Your task to perform on an android device: Do I have any events tomorrow? Image 0: 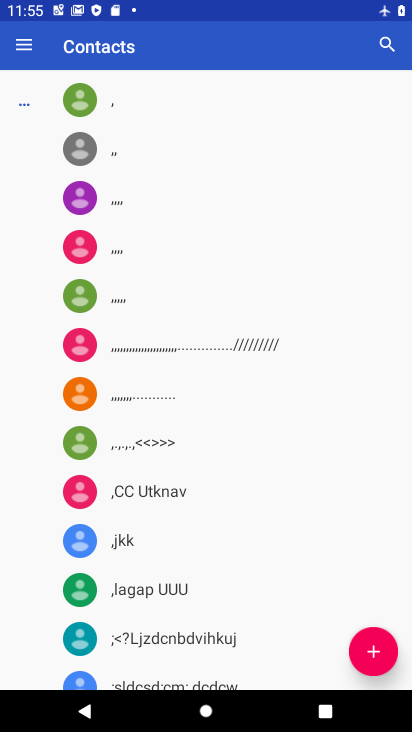
Step 0: press home button
Your task to perform on an android device: Do I have any events tomorrow? Image 1: 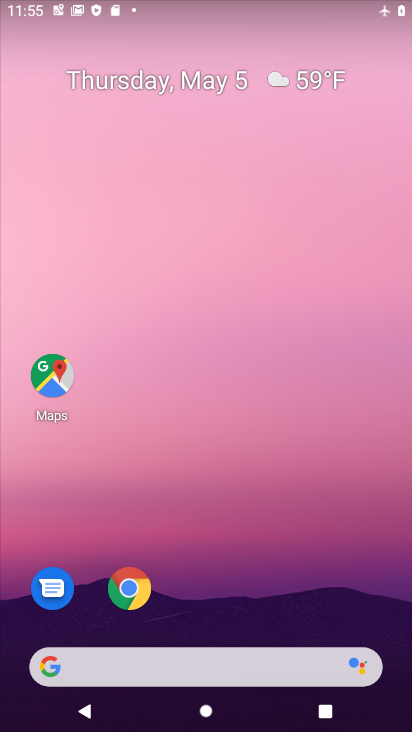
Step 1: drag from (198, 557) to (287, 103)
Your task to perform on an android device: Do I have any events tomorrow? Image 2: 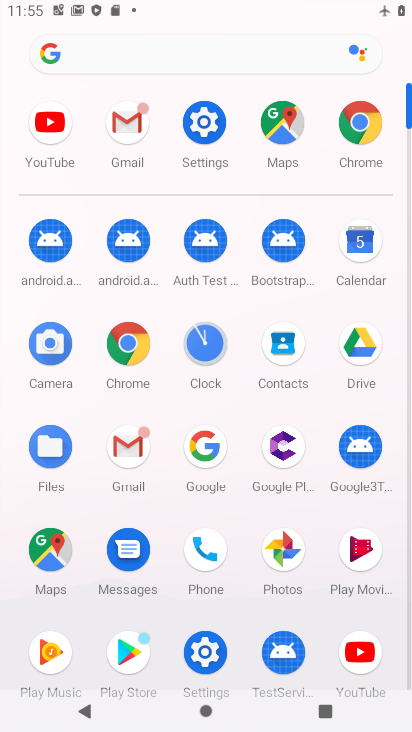
Step 2: click (364, 243)
Your task to perform on an android device: Do I have any events tomorrow? Image 3: 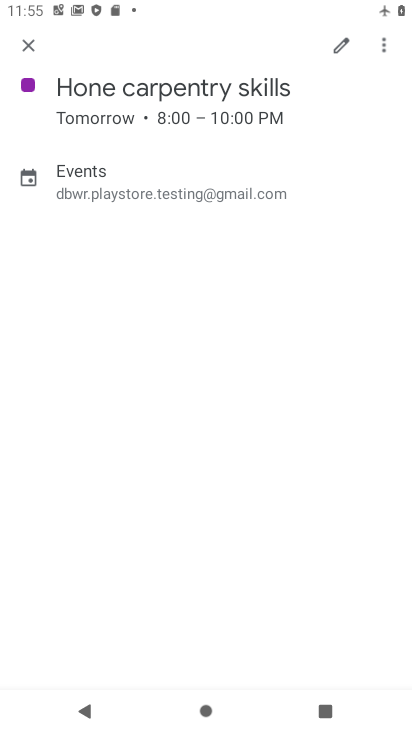
Step 3: click (31, 48)
Your task to perform on an android device: Do I have any events tomorrow? Image 4: 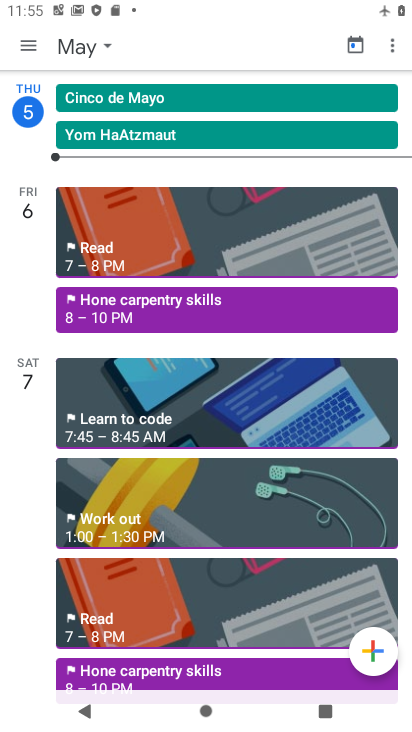
Step 4: click (88, 39)
Your task to perform on an android device: Do I have any events tomorrow? Image 5: 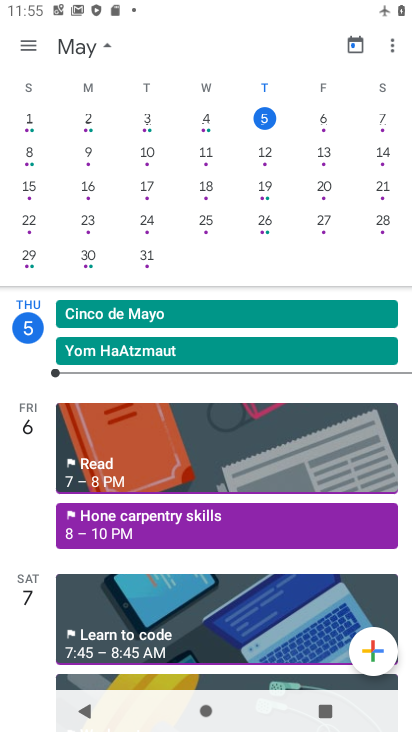
Step 5: click (320, 127)
Your task to perform on an android device: Do I have any events tomorrow? Image 6: 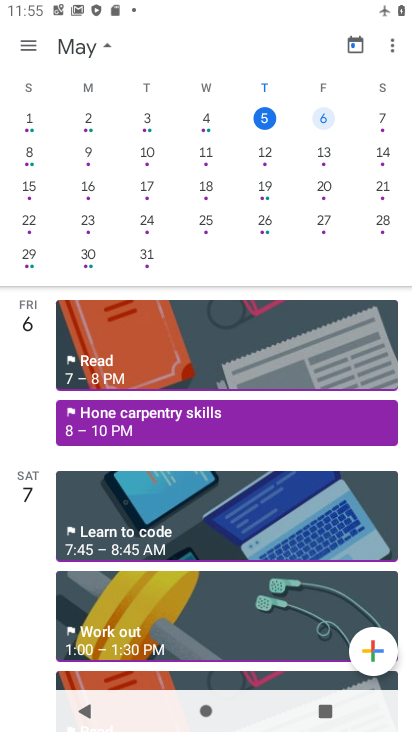
Step 6: click (26, 46)
Your task to perform on an android device: Do I have any events tomorrow? Image 7: 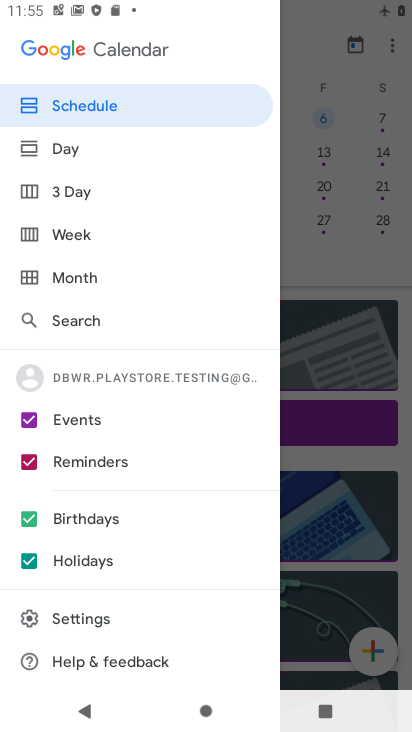
Step 7: click (82, 107)
Your task to perform on an android device: Do I have any events tomorrow? Image 8: 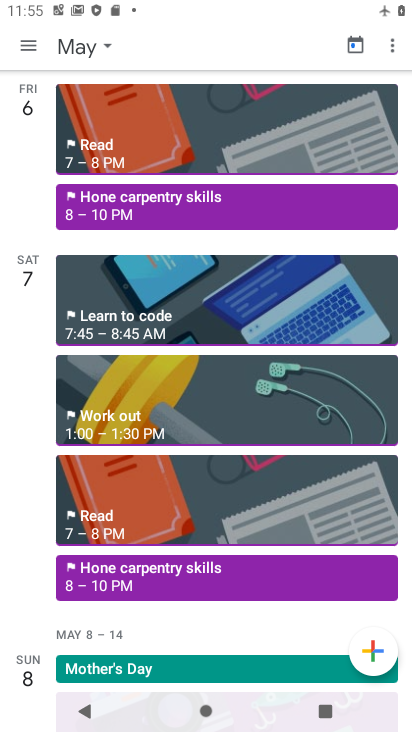
Step 8: click (154, 200)
Your task to perform on an android device: Do I have any events tomorrow? Image 9: 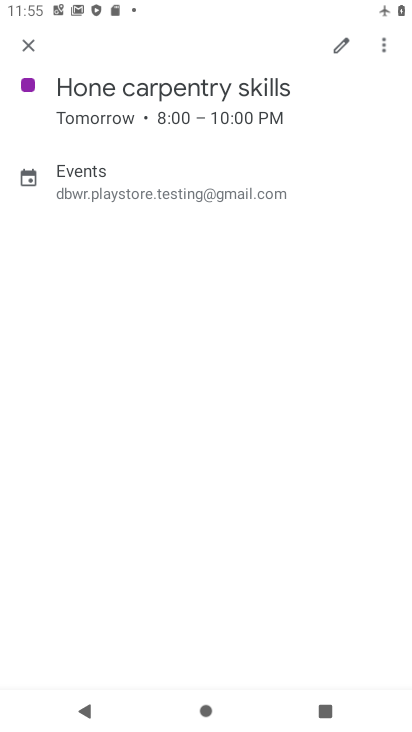
Step 9: task complete